Your task to perform on an android device: turn on javascript in the chrome app Image 0: 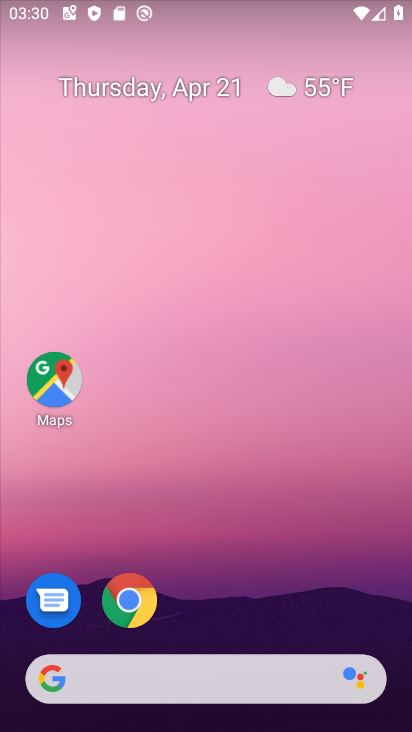
Step 0: click (129, 605)
Your task to perform on an android device: turn on javascript in the chrome app Image 1: 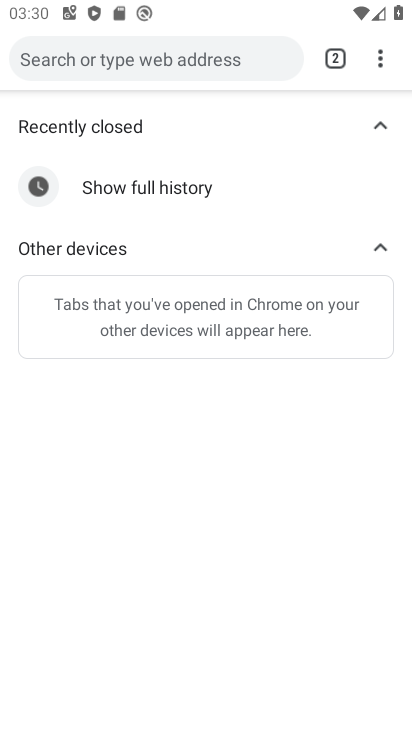
Step 1: click (383, 56)
Your task to perform on an android device: turn on javascript in the chrome app Image 2: 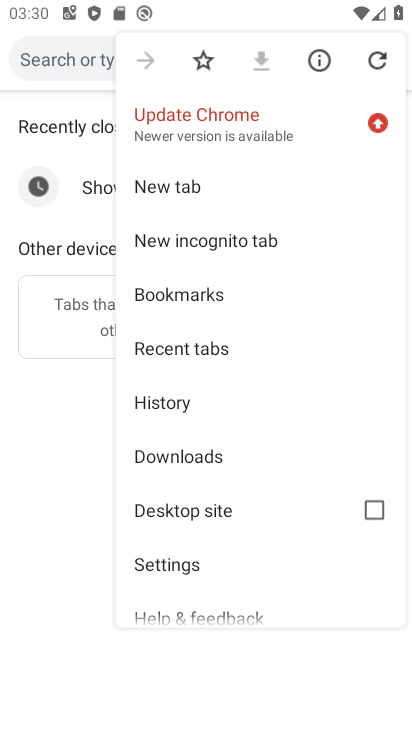
Step 2: click (268, 559)
Your task to perform on an android device: turn on javascript in the chrome app Image 3: 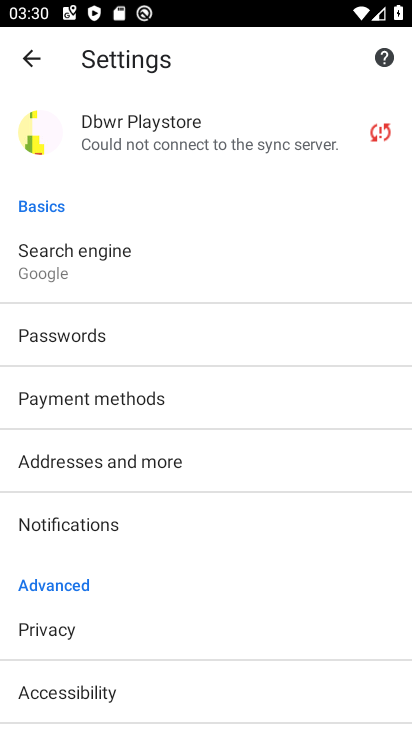
Step 3: drag from (184, 643) to (213, 444)
Your task to perform on an android device: turn on javascript in the chrome app Image 4: 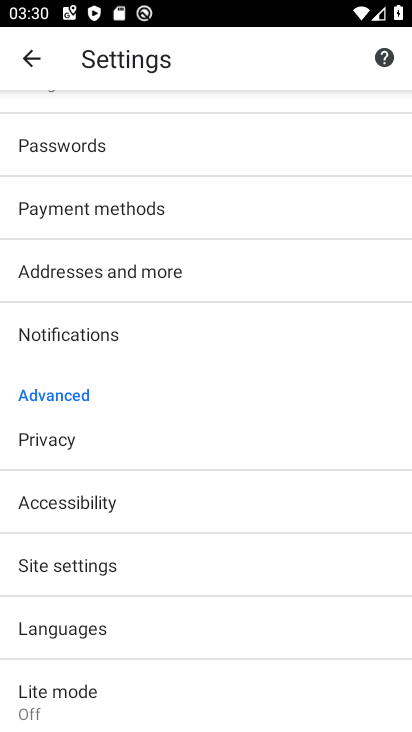
Step 4: click (160, 570)
Your task to perform on an android device: turn on javascript in the chrome app Image 5: 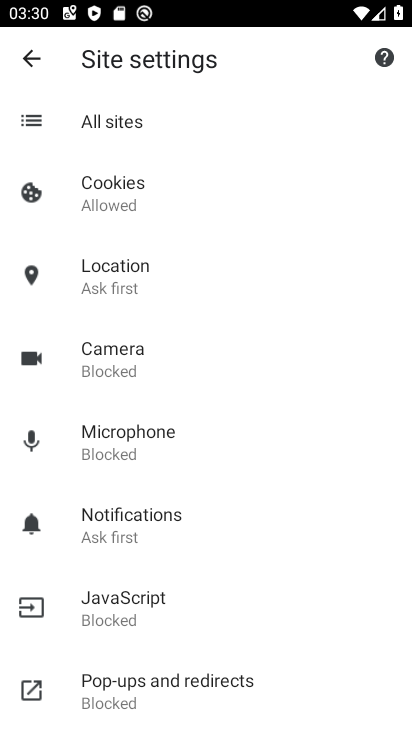
Step 5: click (119, 627)
Your task to perform on an android device: turn on javascript in the chrome app Image 6: 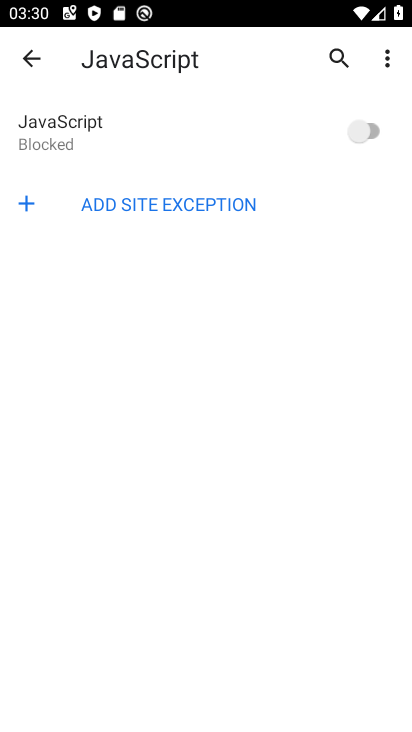
Step 6: click (354, 132)
Your task to perform on an android device: turn on javascript in the chrome app Image 7: 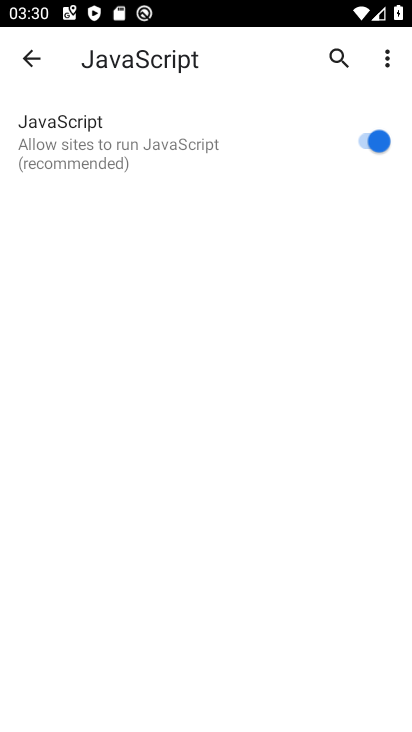
Step 7: task complete